Your task to perform on an android device: Open Yahoo.com Image 0: 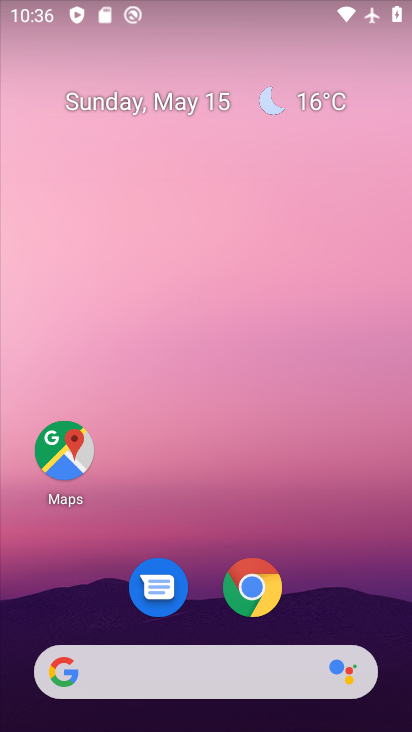
Step 0: drag from (326, 555) to (260, 44)
Your task to perform on an android device: Open Yahoo.com Image 1: 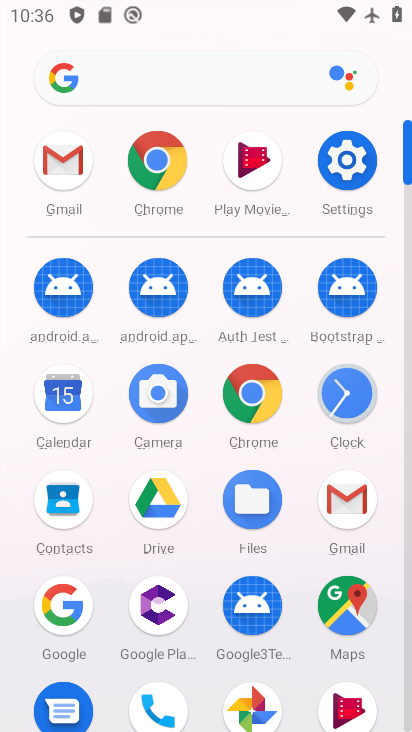
Step 1: click (255, 387)
Your task to perform on an android device: Open Yahoo.com Image 2: 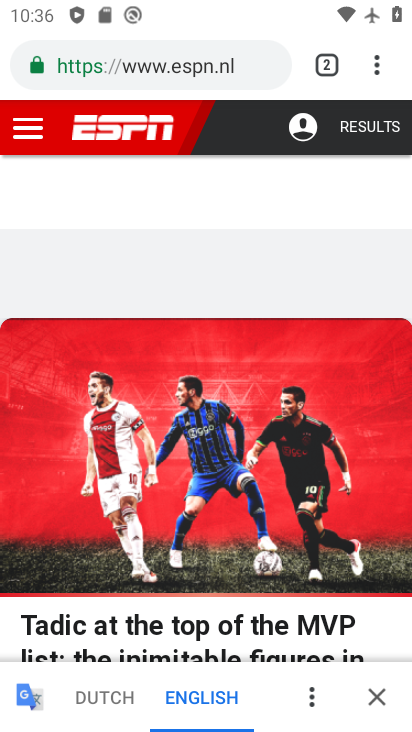
Step 2: click (182, 71)
Your task to perform on an android device: Open Yahoo.com Image 3: 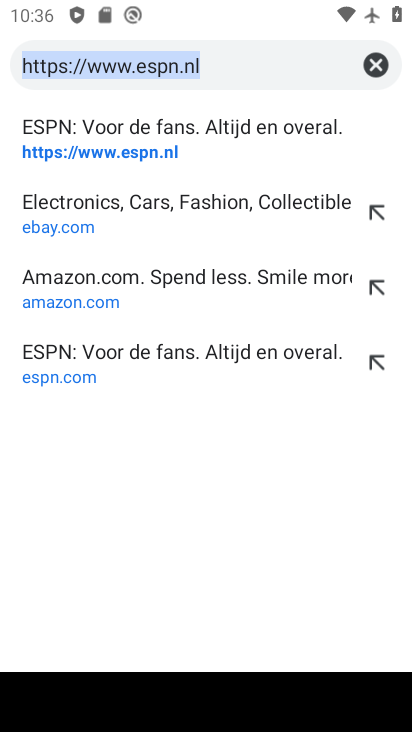
Step 3: click (384, 62)
Your task to perform on an android device: Open Yahoo.com Image 4: 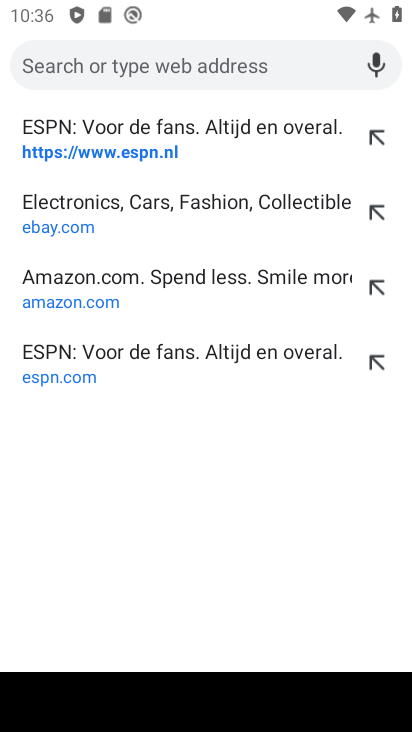
Step 4: type "Yahoo.com"
Your task to perform on an android device: Open Yahoo.com Image 5: 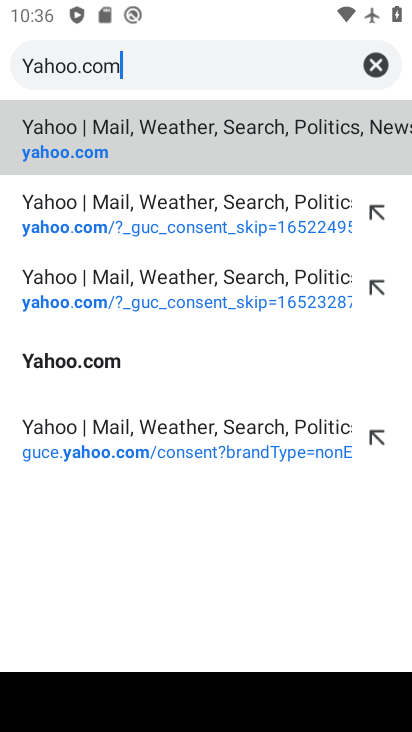
Step 5: type ""
Your task to perform on an android device: Open Yahoo.com Image 6: 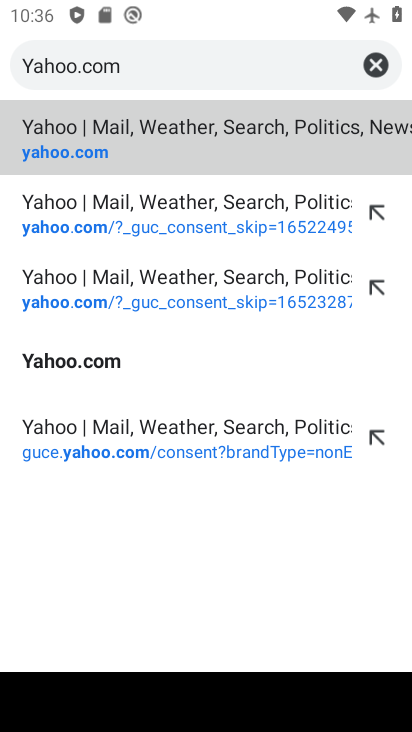
Step 6: click (148, 119)
Your task to perform on an android device: Open Yahoo.com Image 7: 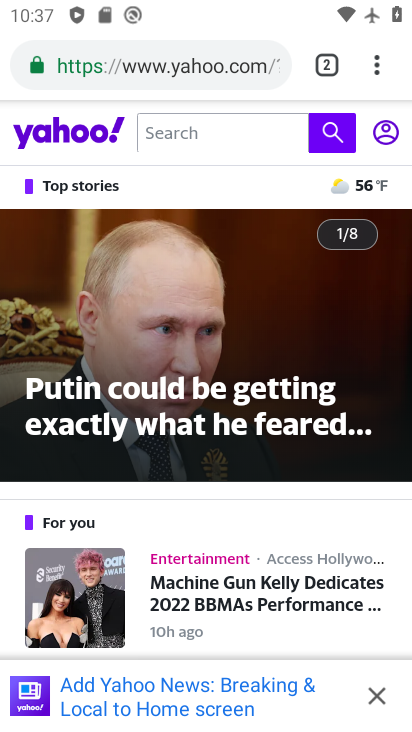
Step 7: task complete